Your task to perform on an android device: Go to CNN.com Image 0: 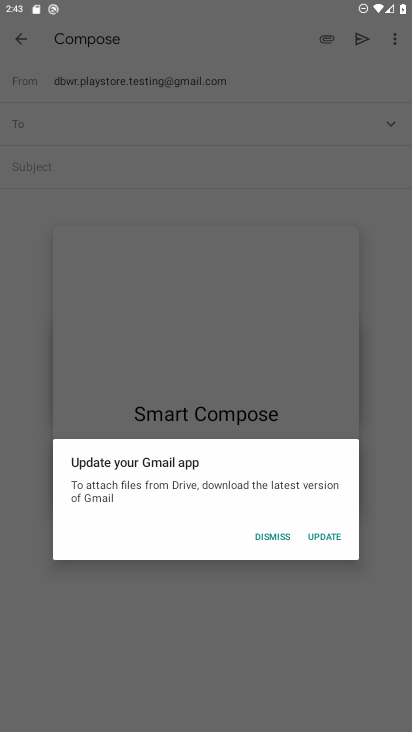
Step 0: press home button
Your task to perform on an android device: Go to CNN.com Image 1: 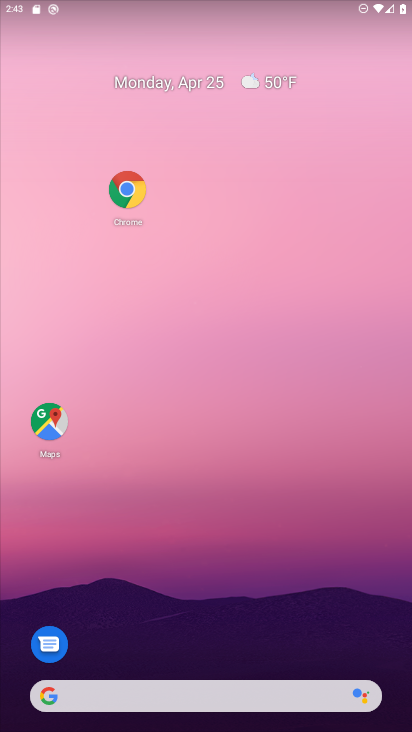
Step 1: click (129, 189)
Your task to perform on an android device: Go to CNN.com Image 2: 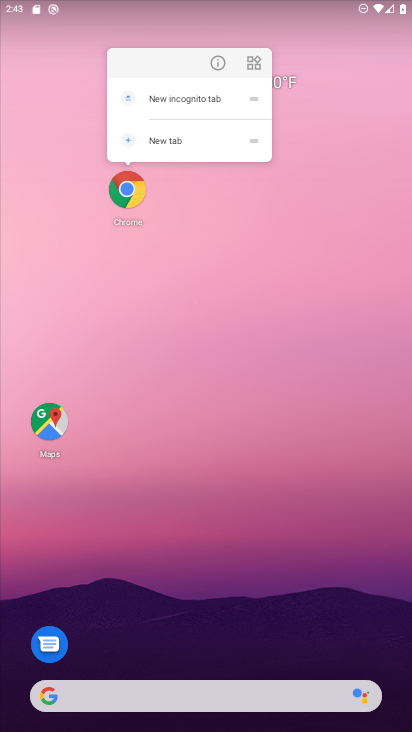
Step 2: click (126, 190)
Your task to perform on an android device: Go to CNN.com Image 3: 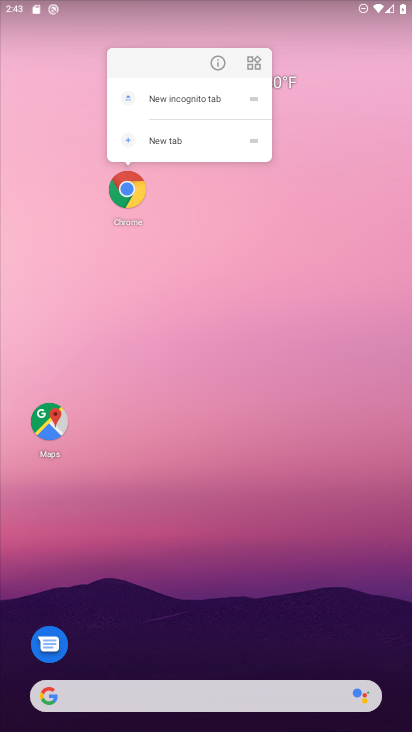
Step 3: click (215, 68)
Your task to perform on an android device: Go to CNN.com Image 4: 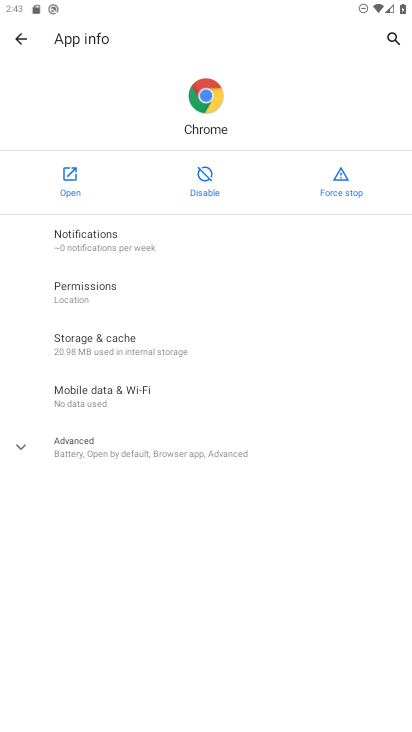
Step 4: click (63, 190)
Your task to perform on an android device: Go to CNN.com Image 5: 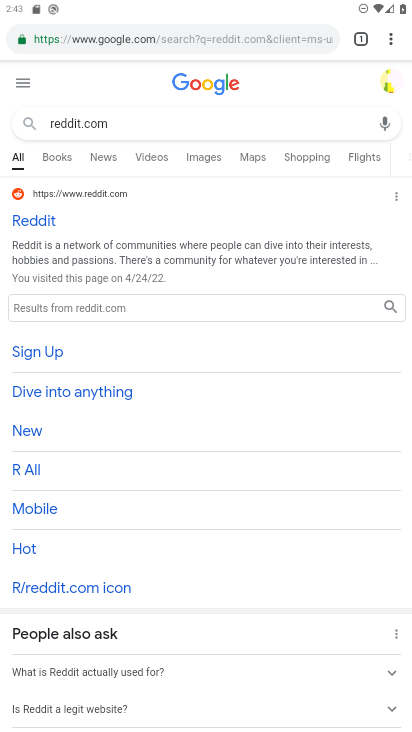
Step 5: click (133, 121)
Your task to perform on an android device: Go to CNN.com Image 6: 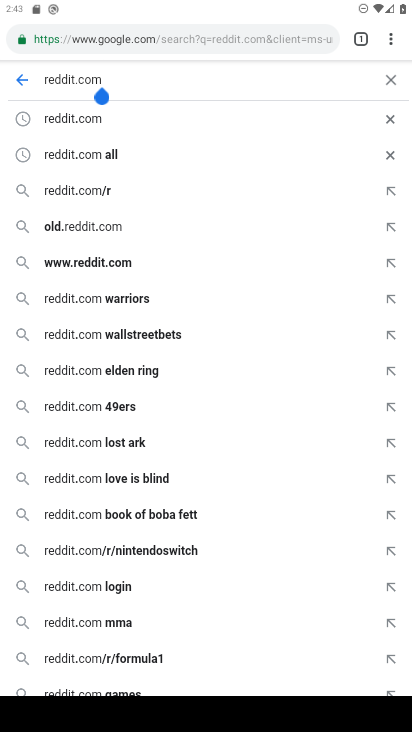
Step 6: click (381, 81)
Your task to perform on an android device: Go to CNN.com Image 7: 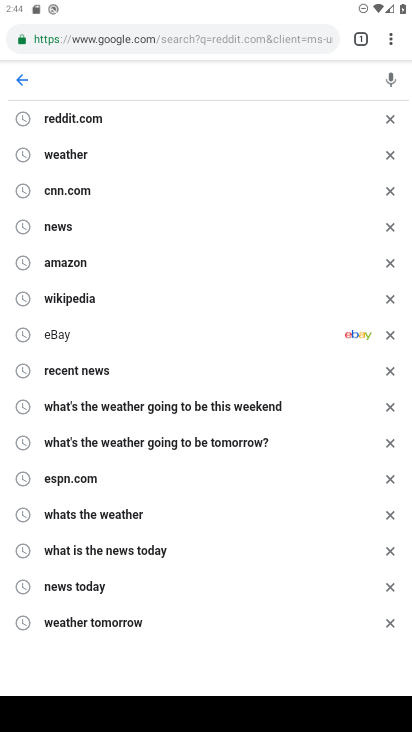
Step 7: type "CNN.com"
Your task to perform on an android device: Go to CNN.com Image 8: 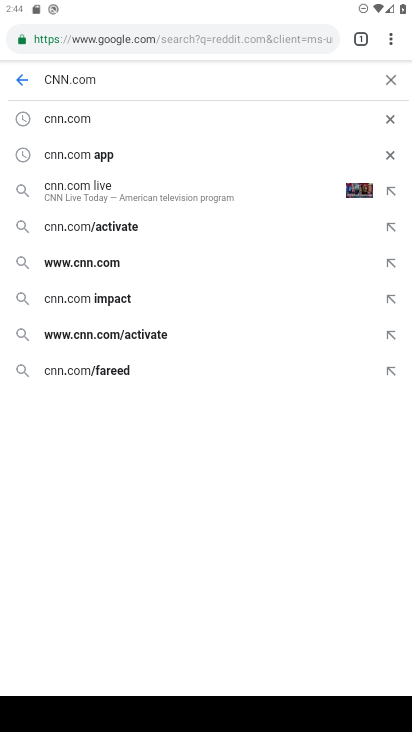
Step 8: click (78, 119)
Your task to perform on an android device: Go to CNN.com Image 9: 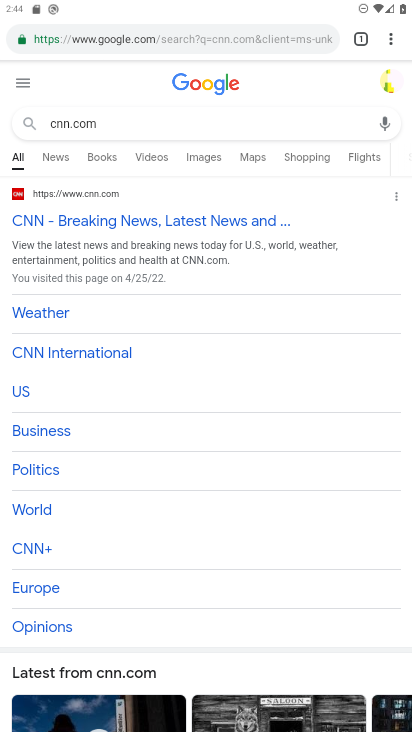
Step 9: task complete